Your task to perform on an android device: stop showing notifications on the lock screen Image 0: 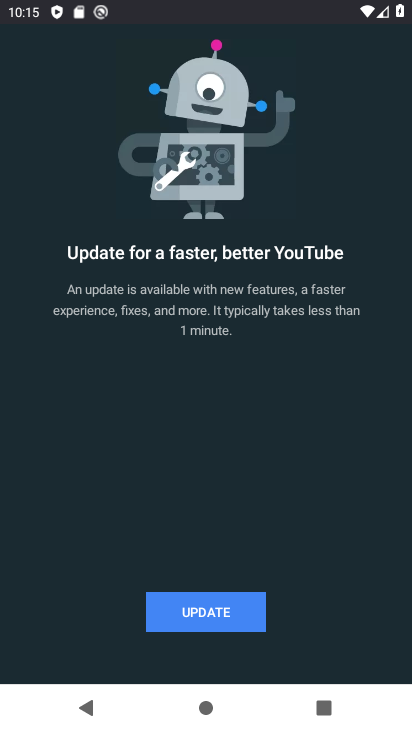
Step 0: press home button
Your task to perform on an android device: stop showing notifications on the lock screen Image 1: 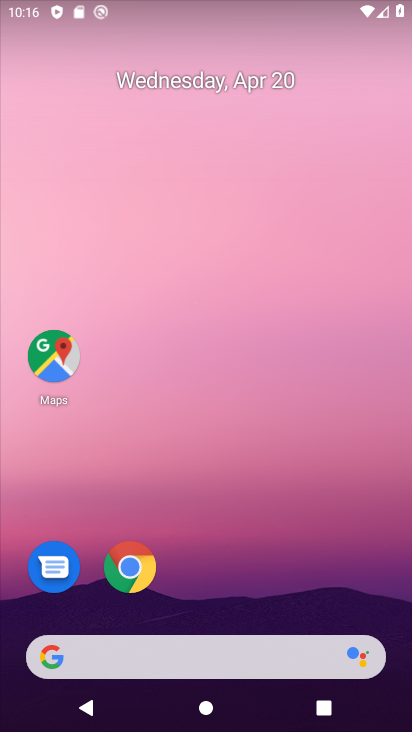
Step 1: drag from (236, 590) to (324, 59)
Your task to perform on an android device: stop showing notifications on the lock screen Image 2: 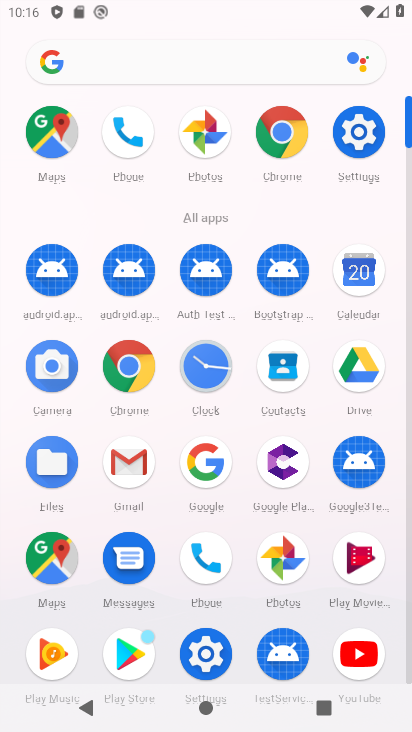
Step 2: click (360, 132)
Your task to perform on an android device: stop showing notifications on the lock screen Image 3: 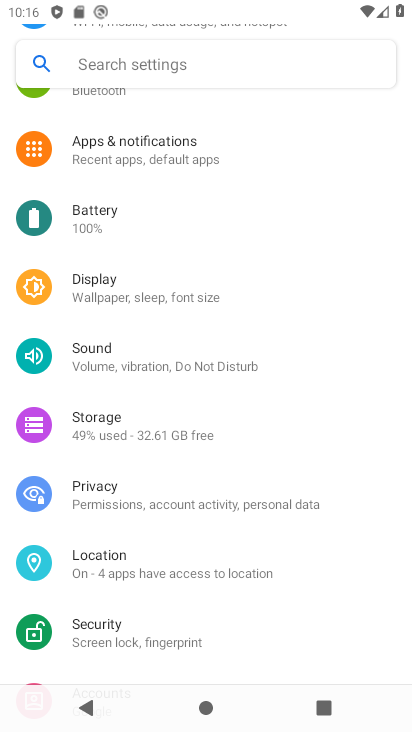
Step 3: click (155, 160)
Your task to perform on an android device: stop showing notifications on the lock screen Image 4: 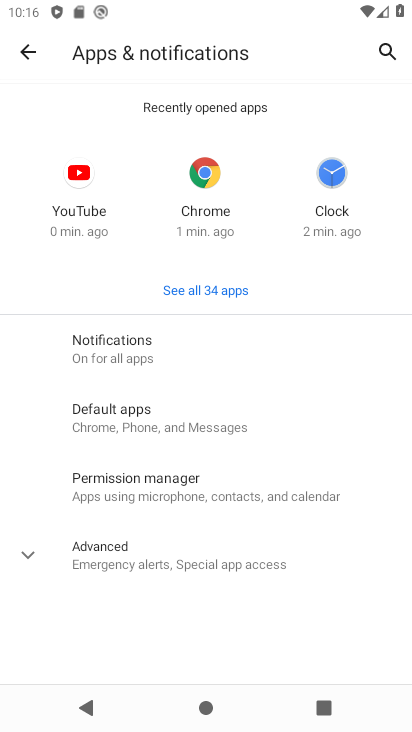
Step 4: click (128, 346)
Your task to perform on an android device: stop showing notifications on the lock screen Image 5: 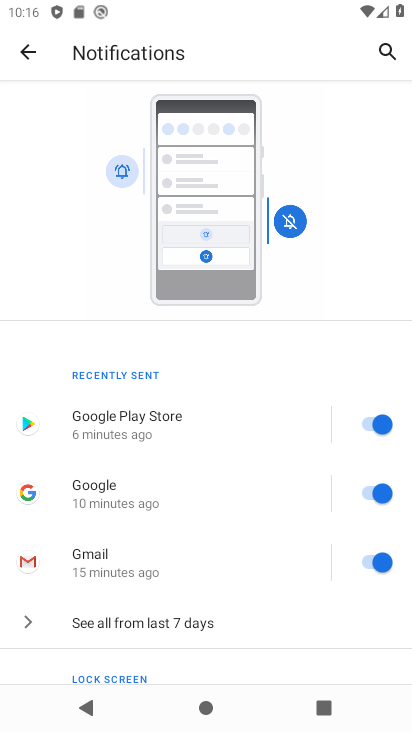
Step 5: drag from (221, 546) to (327, 325)
Your task to perform on an android device: stop showing notifications on the lock screen Image 6: 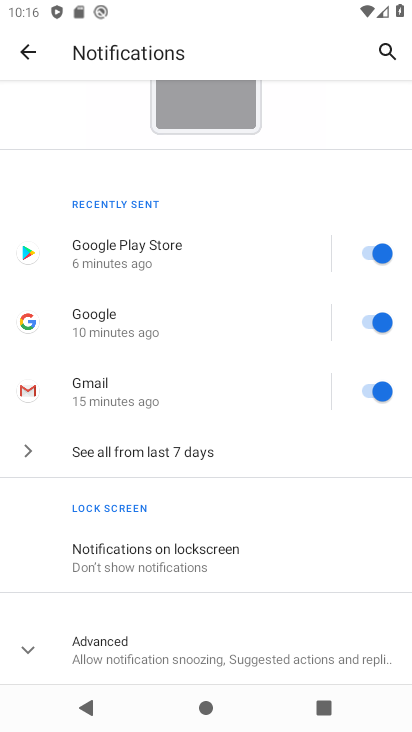
Step 6: click (221, 547)
Your task to perform on an android device: stop showing notifications on the lock screen Image 7: 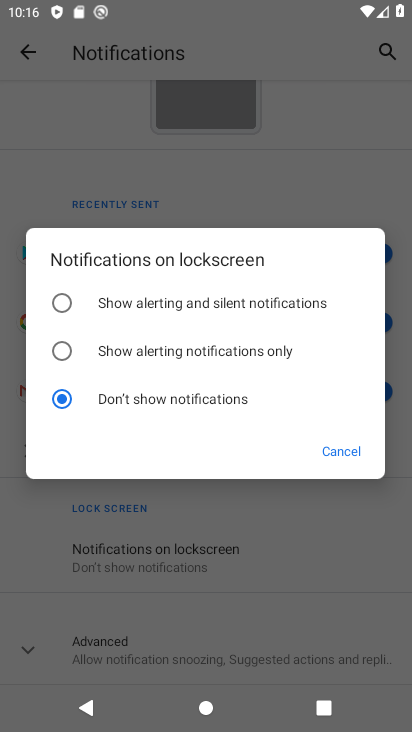
Step 7: click (61, 397)
Your task to perform on an android device: stop showing notifications on the lock screen Image 8: 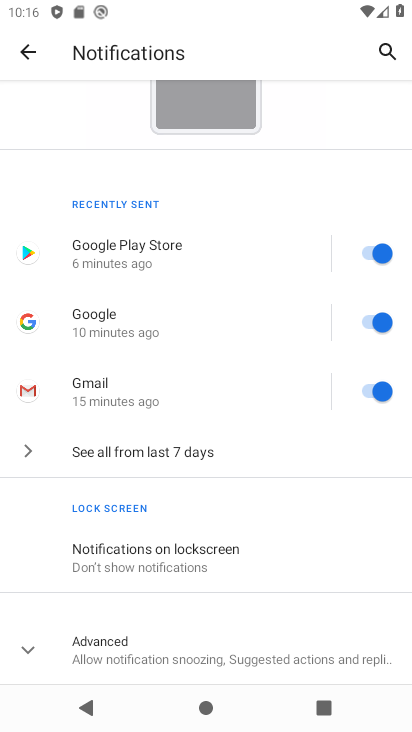
Step 8: task complete